Your task to perform on an android device: turn off javascript in the chrome app Image 0: 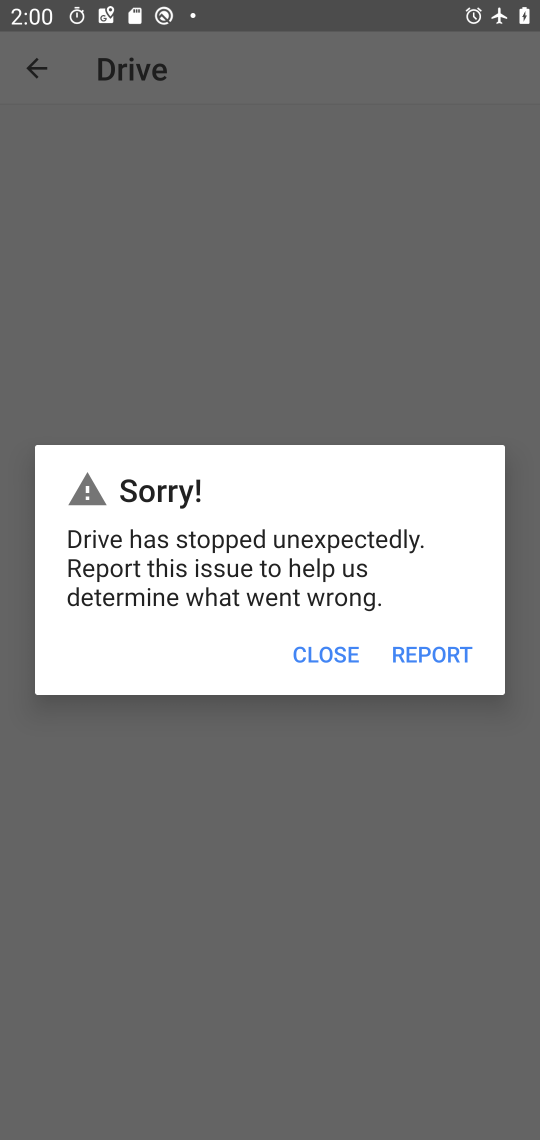
Step 0: press home button
Your task to perform on an android device: turn off javascript in the chrome app Image 1: 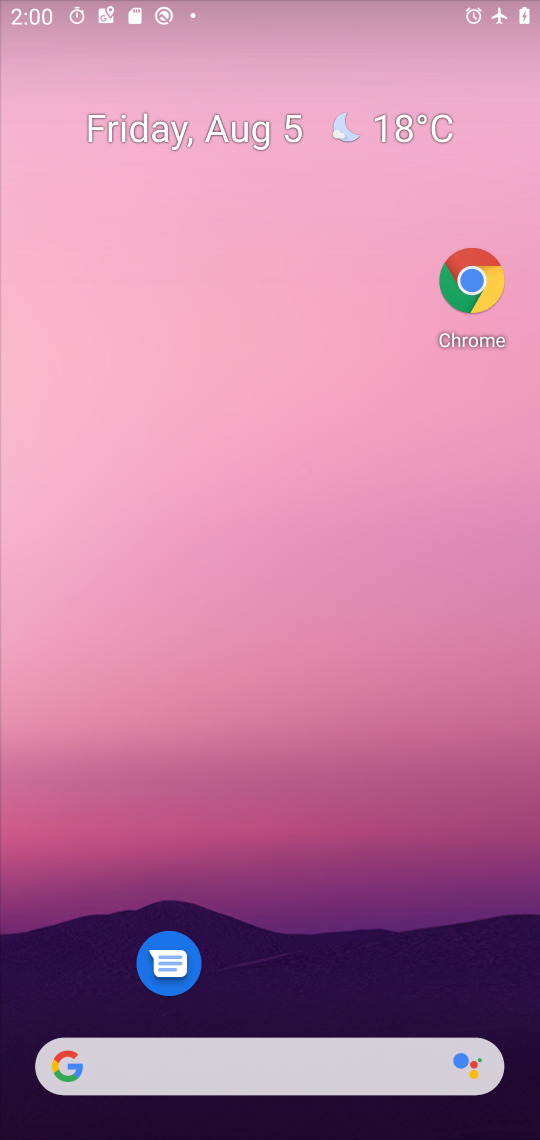
Step 1: drag from (310, 892) to (324, 14)
Your task to perform on an android device: turn off javascript in the chrome app Image 2: 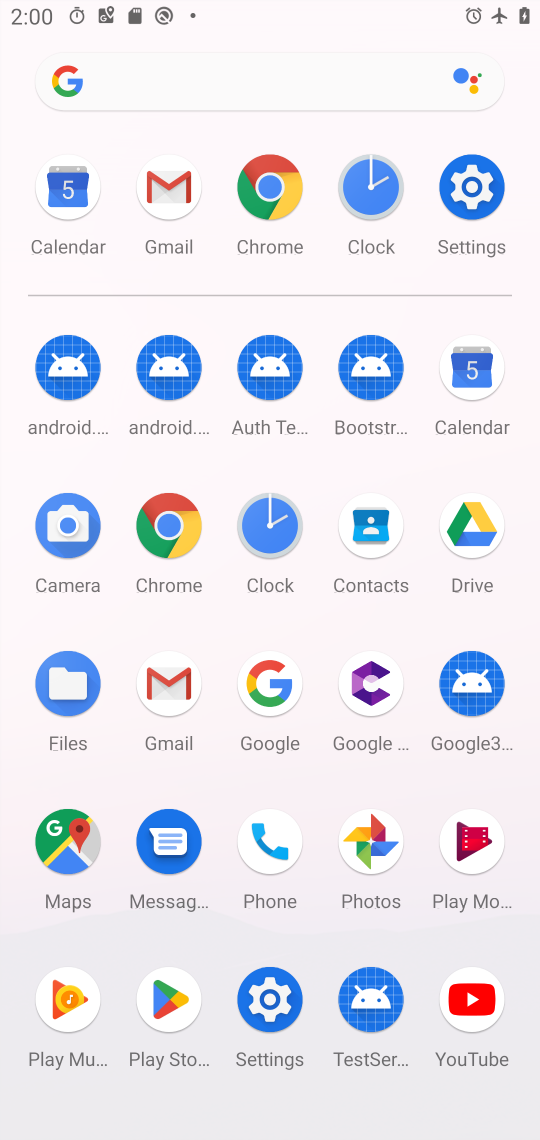
Step 2: click (264, 222)
Your task to perform on an android device: turn off javascript in the chrome app Image 3: 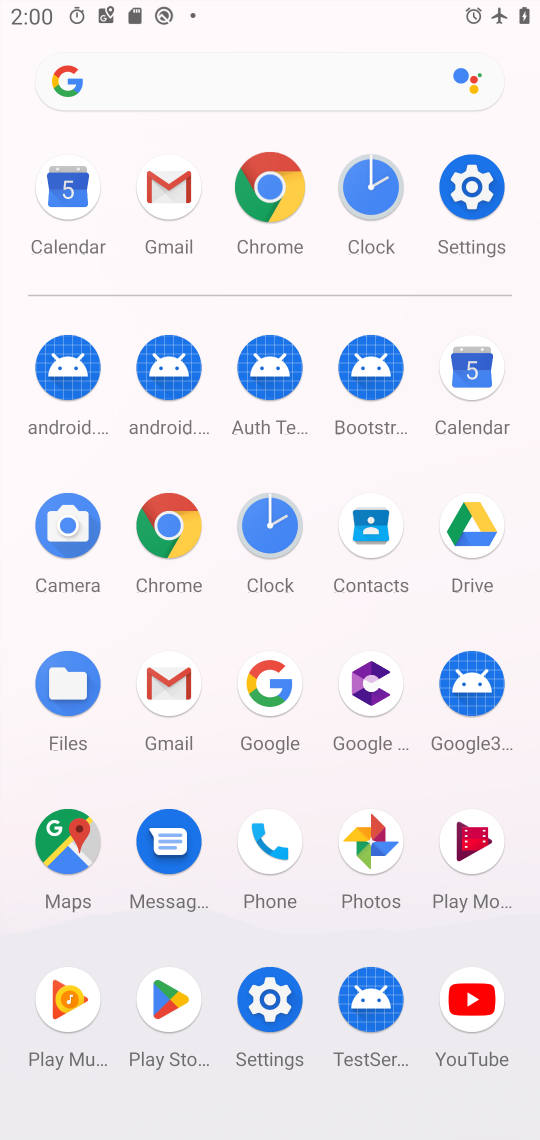
Step 3: click (263, 209)
Your task to perform on an android device: turn off javascript in the chrome app Image 4: 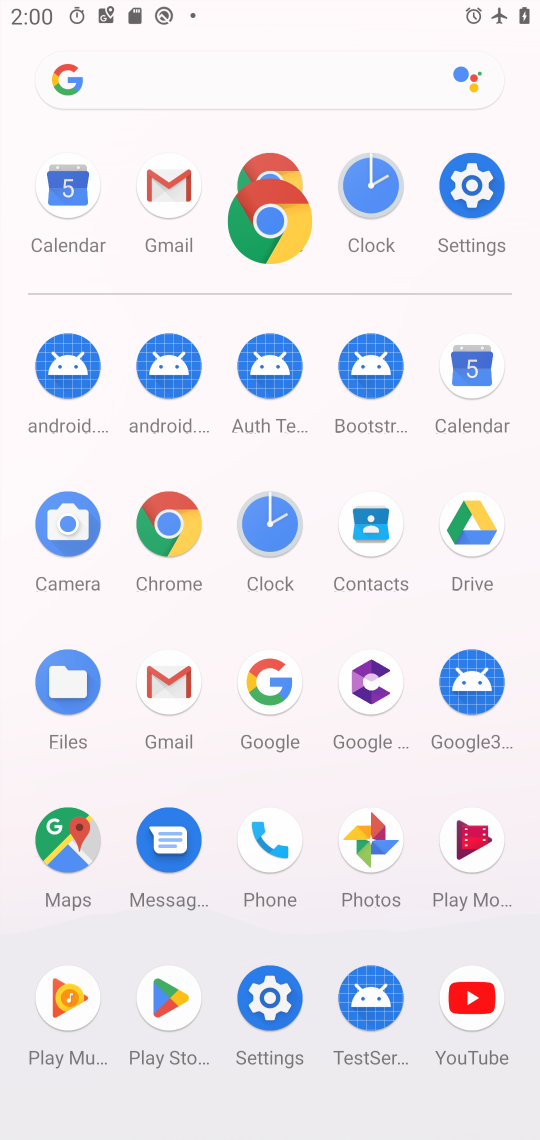
Step 4: click (263, 209)
Your task to perform on an android device: turn off javascript in the chrome app Image 5: 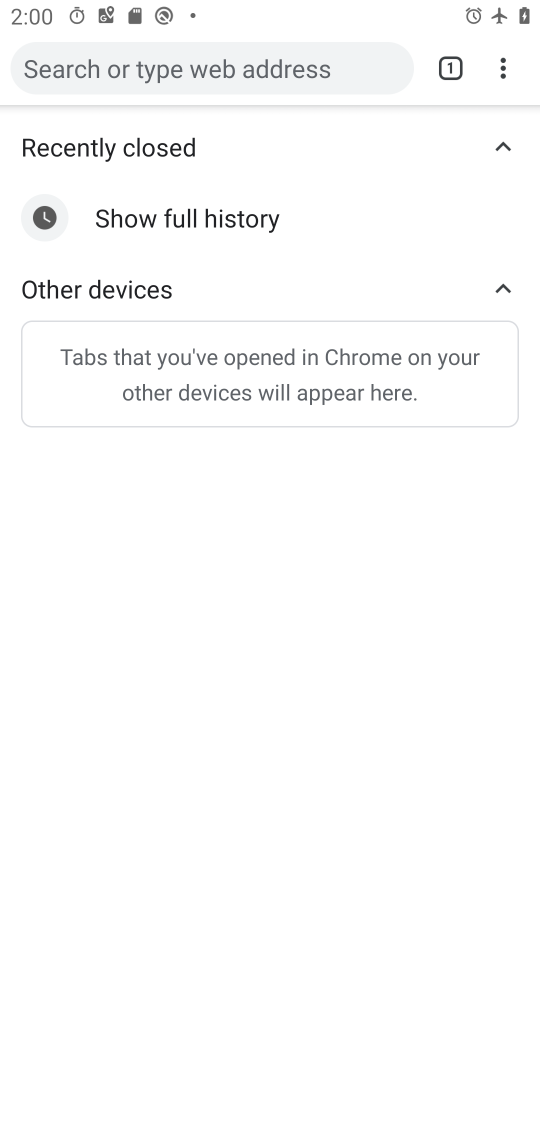
Step 5: drag from (503, 68) to (256, 583)
Your task to perform on an android device: turn off javascript in the chrome app Image 6: 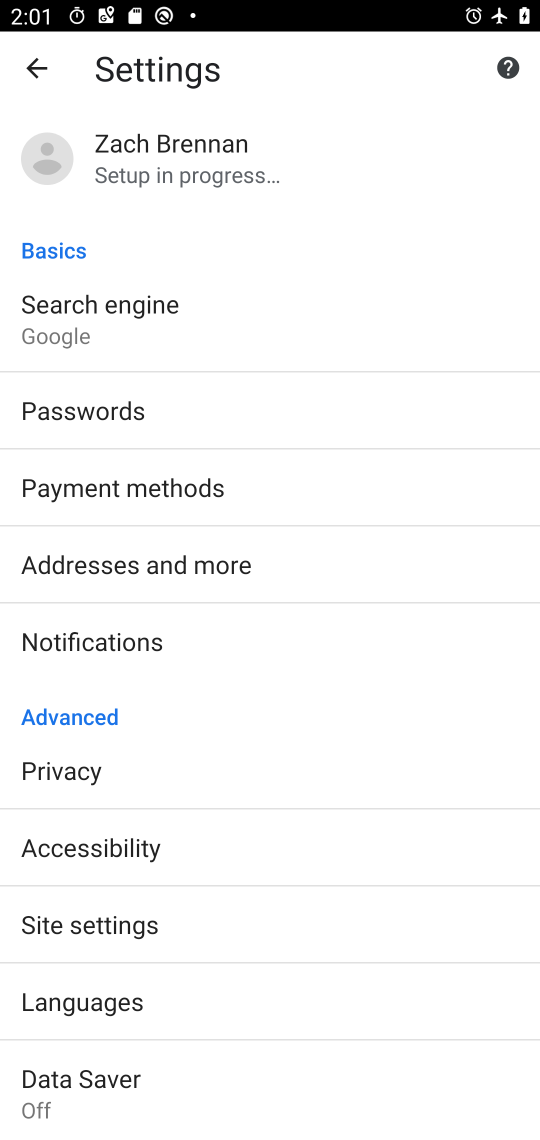
Step 6: click (137, 934)
Your task to perform on an android device: turn off javascript in the chrome app Image 7: 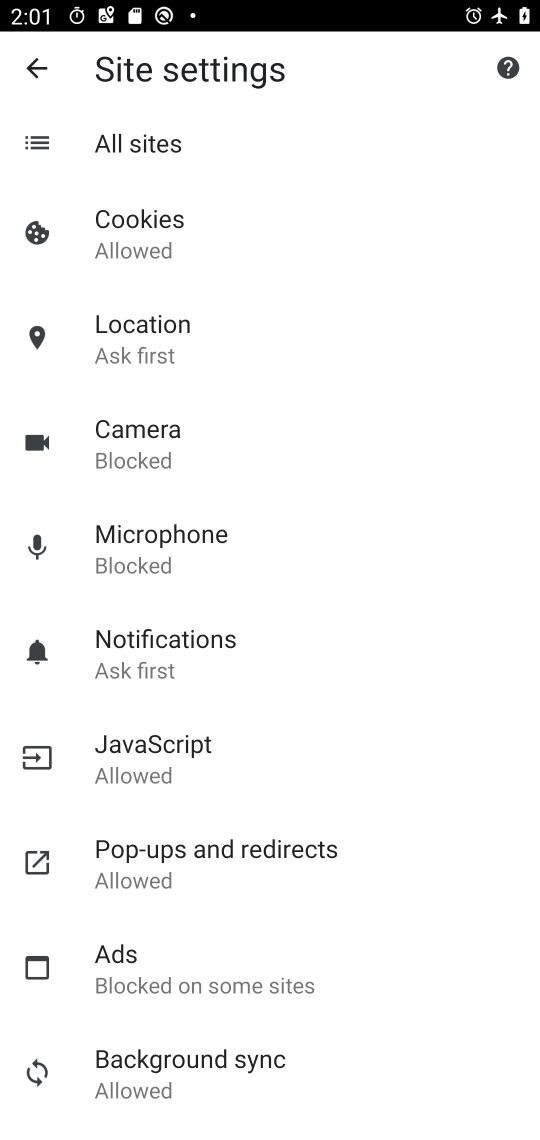
Step 7: click (151, 757)
Your task to perform on an android device: turn off javascript in the chrome app Image 8: 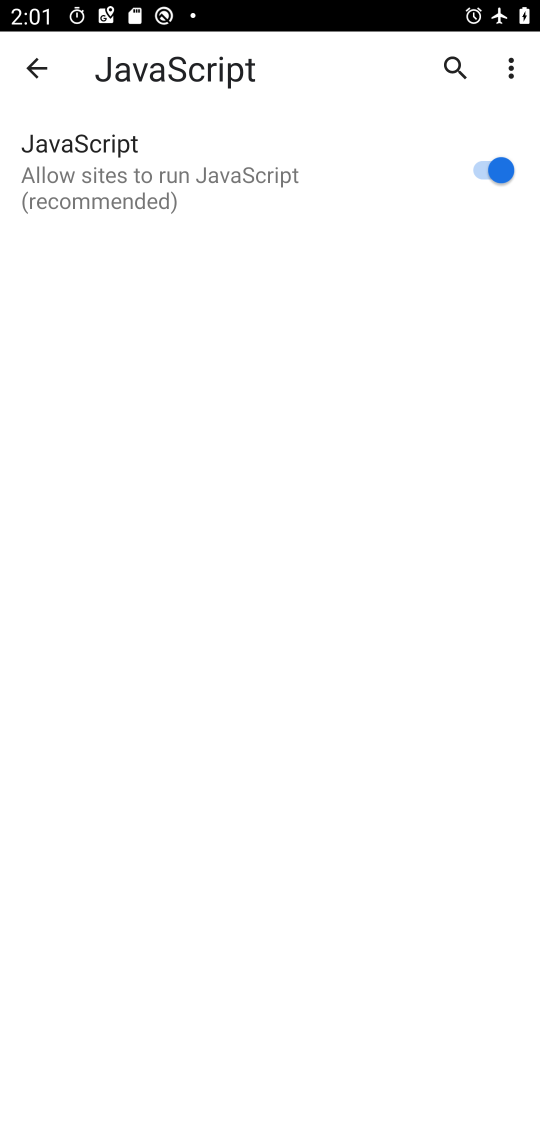
Step 8: click (485, 169)
Your task to perform on an android device: turn off javascript in the chrome app Image 9: 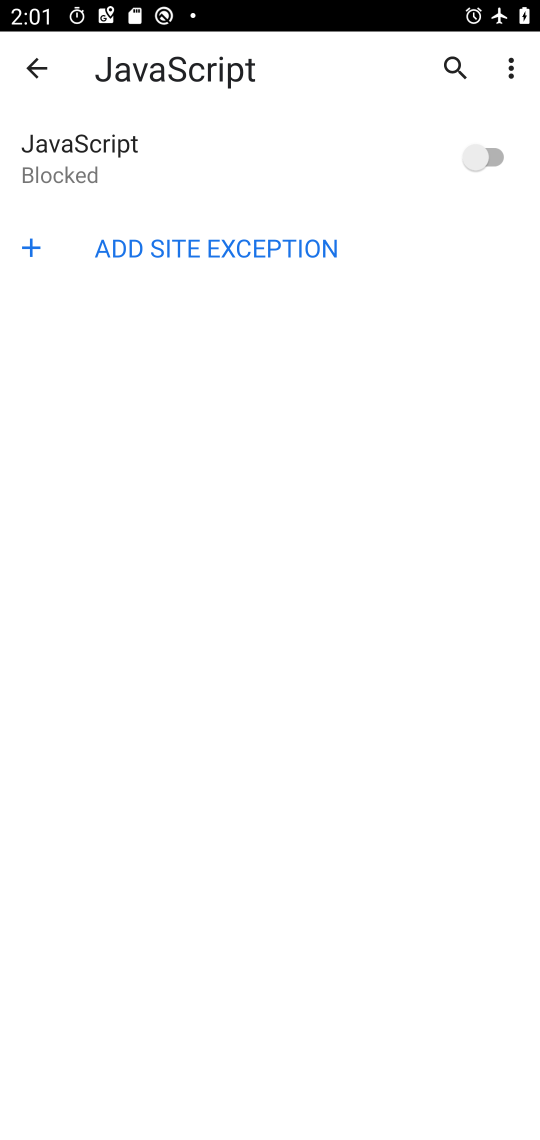
Step 9: task complete